Your task to perform on an android device: find snoozed emails in the gmail app Image 0: 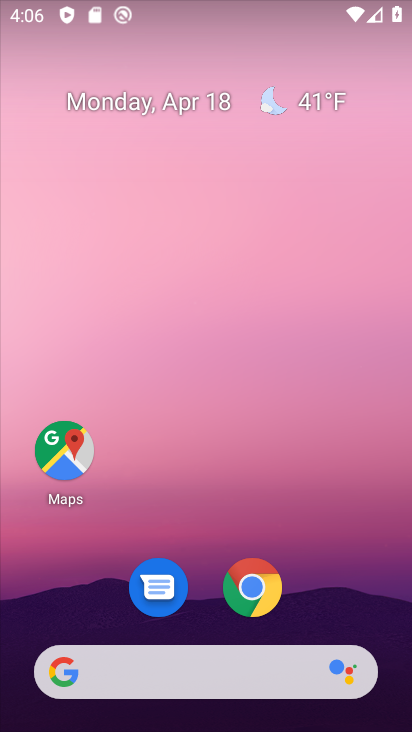
Step 0: drag from (139, 655) to (231, 200)
Your task to perform on an android device: find snoozed emails in the gmail app Image 1: 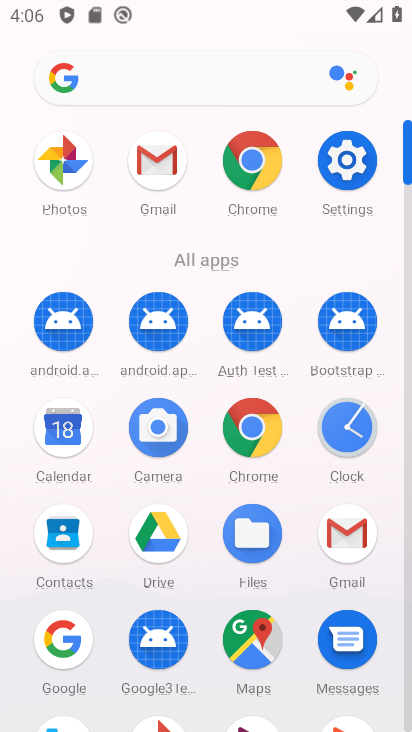
Step 1: click (341, 532)
Your task to perform on an android device: find snoozed emails in the gmail app Image 2: 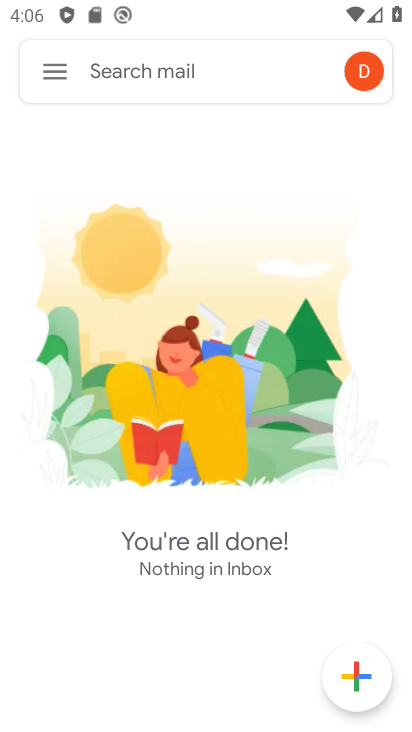
Step 2: click (62, 70)
Your task to perform on an android device: find snoozed emails in the gmail app Image 3: 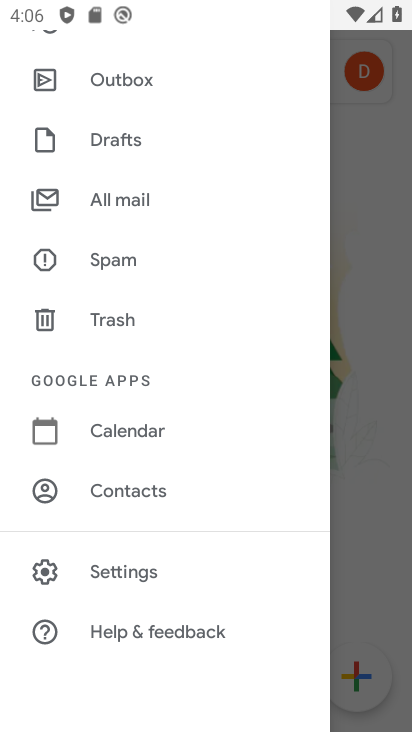
Step 3: drag from (145, 140) to (155, 472)
Your task to perform on an android device: find snoozed emails in the gmail app Image 4: 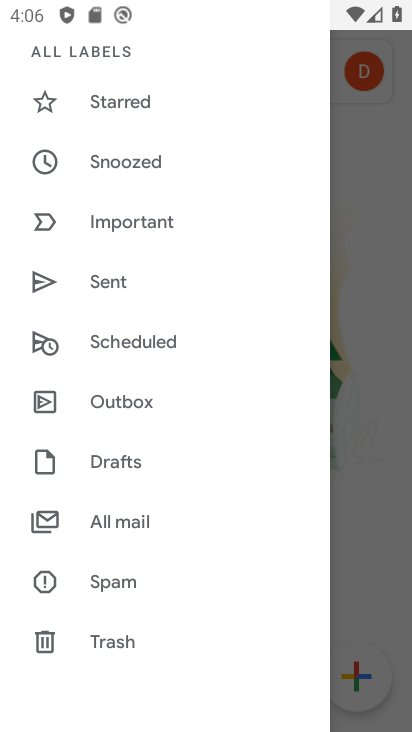
Step 4: click (174, 161)
Your task to perform on an android device: find snoozed emails in the gmail app Image 5: 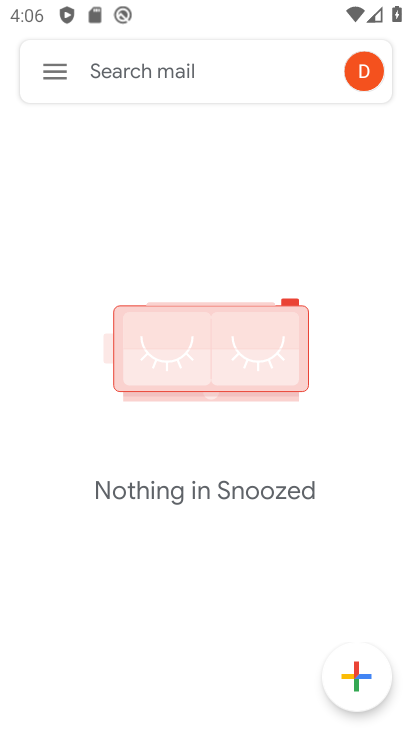
Step 5: task complete